Your task to perform on an android device: allow cookies in the chrome app Image 0: 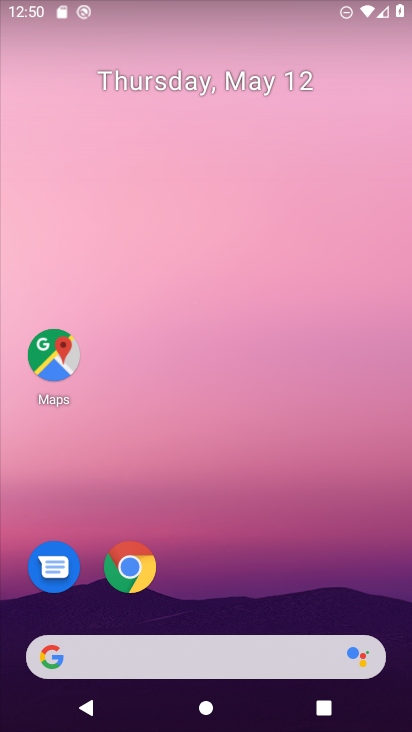
Step 0: drag from (291, 685) to (205, 93)
Your task to perform on an android device: allow cookies in the chrome app Image 1: 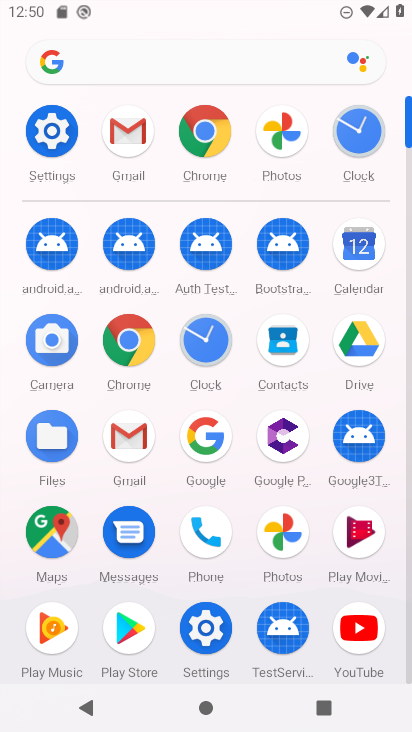
Step 1: click (211, 131)
Your task to perform on an android device: allow cookies in the chrome app Image 2: 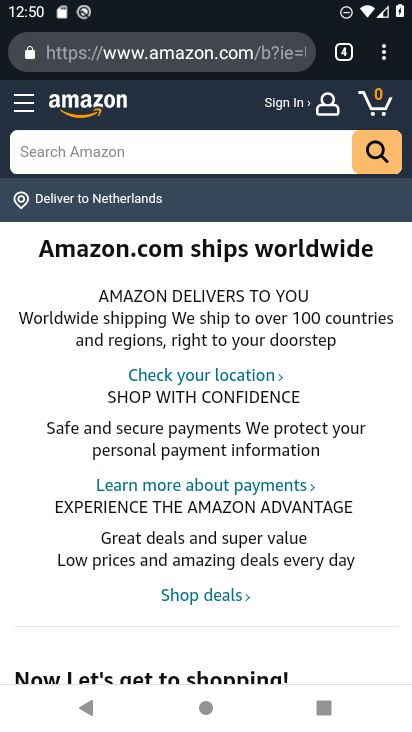
Step 2: click (383, 53)
Your task to perform on an android device: allow cookies in the chrome app Image 3: 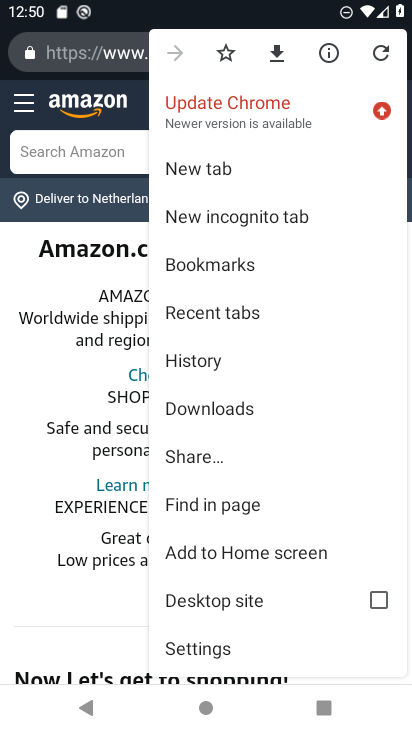
Step 3: click (216, 647)
Your task to perform on an android device: allow cookies in the chrome app Image 4: 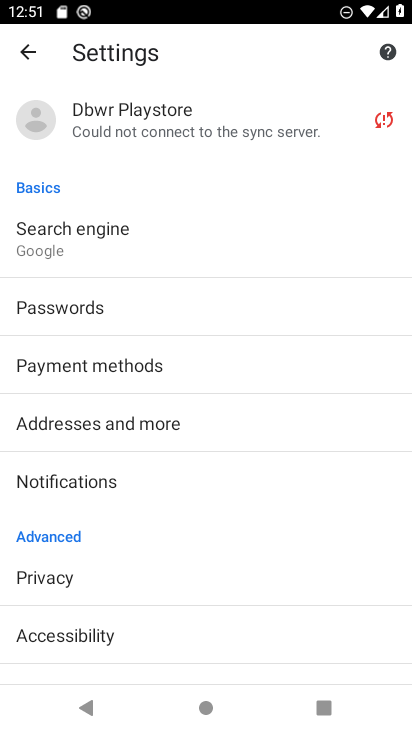
Step 4: drag from (261, 519) to (259, 35)
Your task to perform on an android device: allow cookies in the chrome app Image 5: 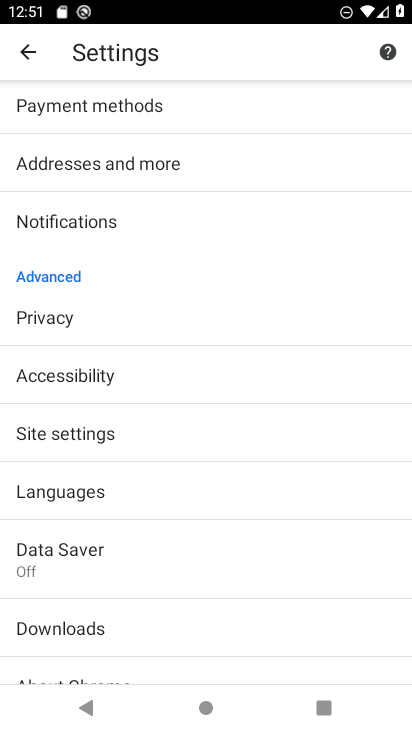
Step 5: click (102, 435)
Your task to perform on an android device: allow cookies in the chrome app Image 6: 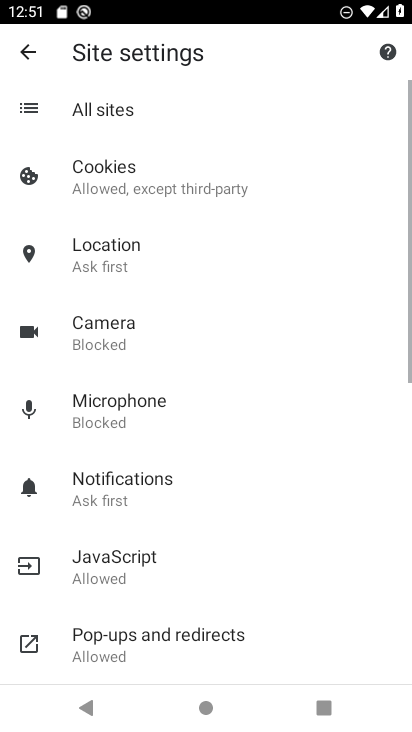
Step 6: click (139, 203)
Your task to perform on an android device: allow cookies in the chrome app Image 7: 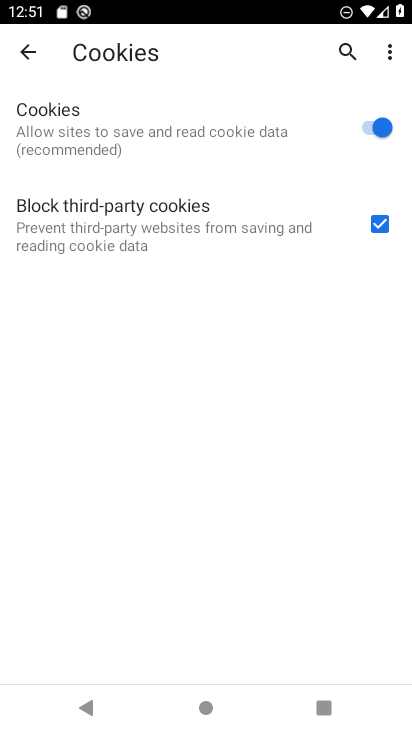
Step 7: task complete